Your task to perform on an android device: What's the weather like in Mumbai? Image 0: 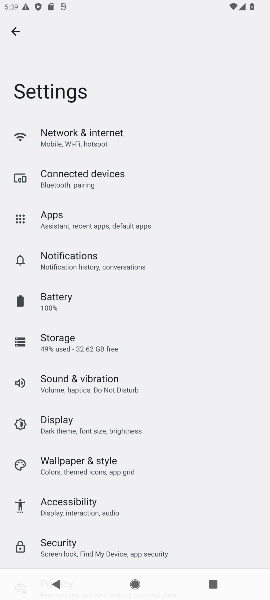
Step 0: press home button
Your task to perform on an android device: What's the weather like in Mumbai? Image 1: 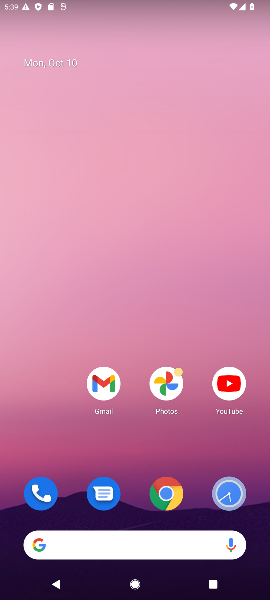
Step 1: click (157, 546)
Your task to perform on an android device: What's the weather like in Mumbai? Image 2: 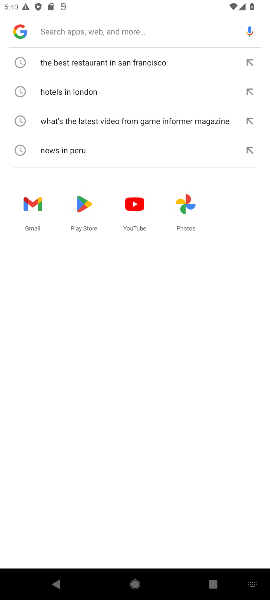
Step 2: type "What's the weather like in Mumbai?"
Your task to perform on an android device: What's the weather like in Mumbai? Image 3: 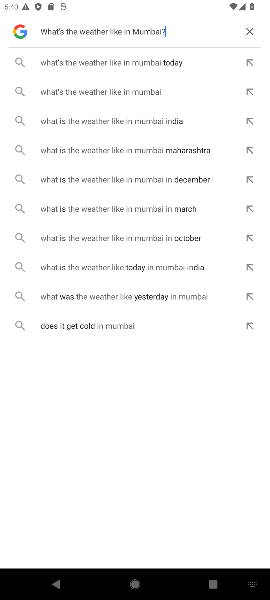
Step 3: click (176, 62)
Your task to perform on an android device: What's the weather like in Mumbai? Image 4: 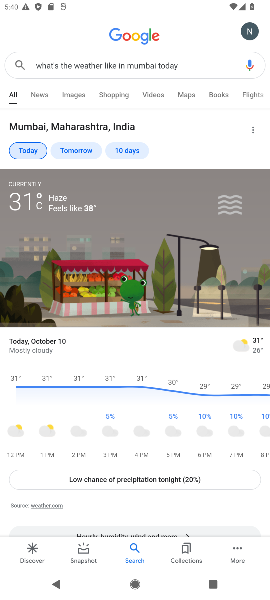
Step 4: task complete